Your task to perform on an android device: Search for pizza restaurants on Maps Image 0: 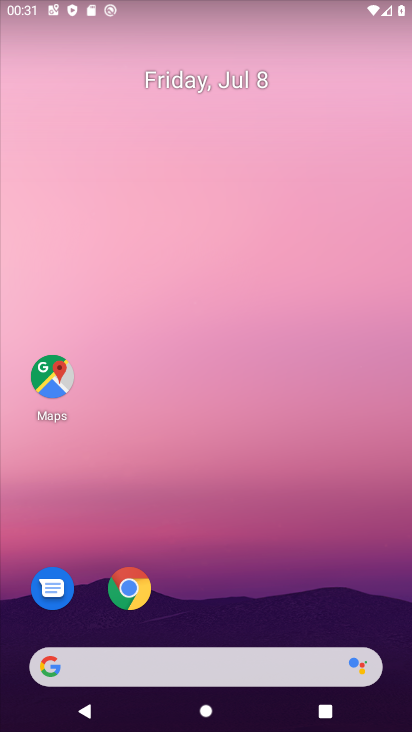
Step 0: drag from (184, 601) to (281, 158)
Your task to perform on an android device: Search for pizza restaurants on Maps Image 1: 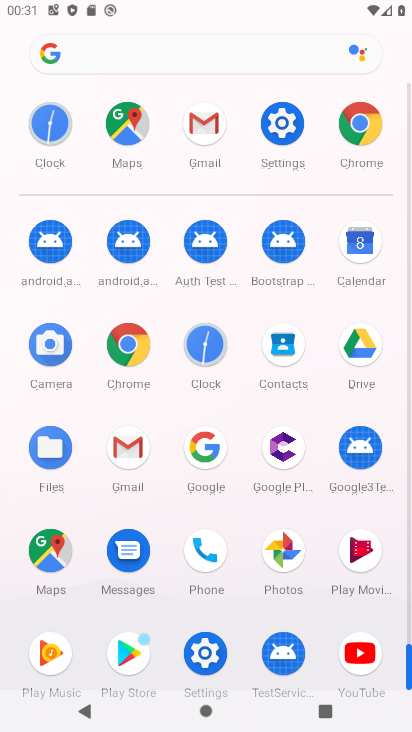
Step 1: click (53, 542)
Your task to perform on an android device: Search for pizza restaurants on Maps Image 2: 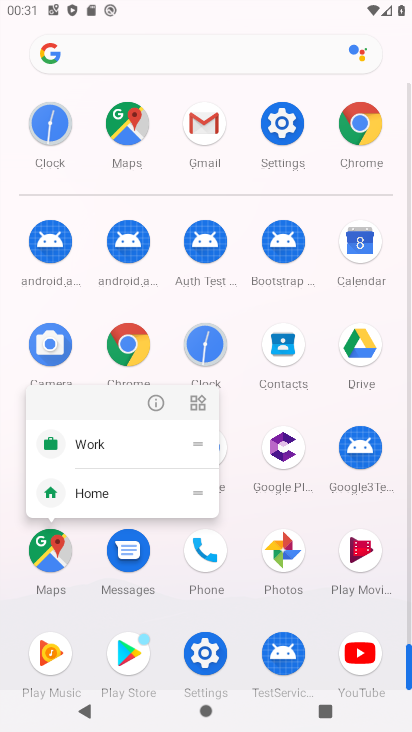
Step 2: click (152, 400)
Your task to perform on an android device: Search for pizza restaurants on Maps Image 3: 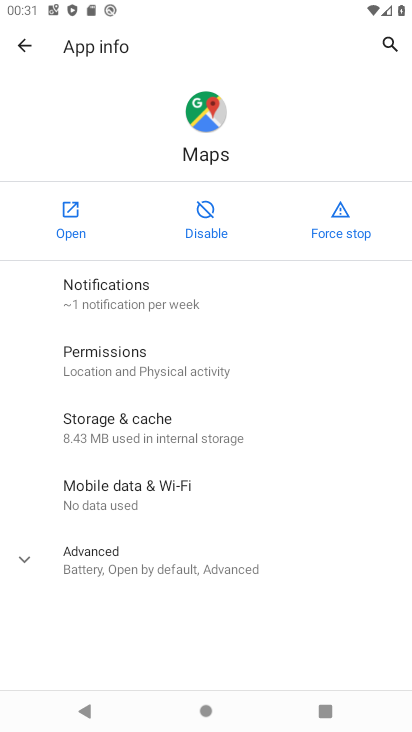
Step 3: click (94, 223)
Your task to perform on an android device: Search for pizza restaurants on Maps Image 4: 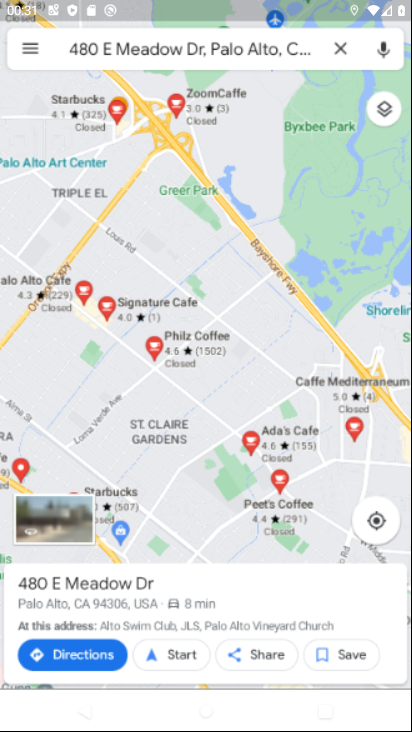
Step 4: click (340, 50)
Your task to perform on an android device: Search for pizza restaurants on Maps Image 5: 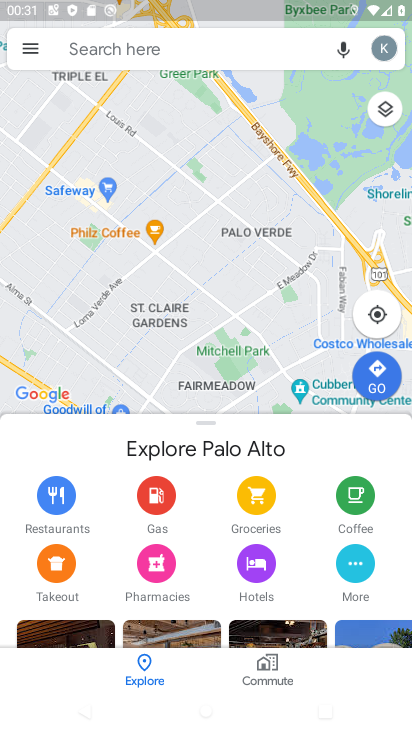
Step 5: click (146, 47)
Your task to perform on an android device: Search for pizza restaurants on Maps Image 6: 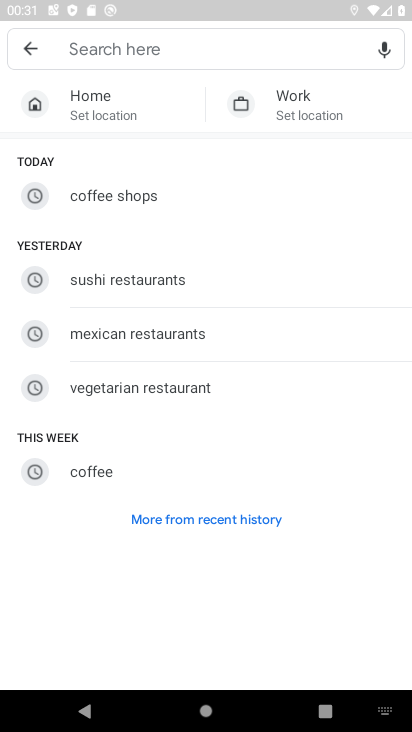
Step 6: type "pizza restaurants"
Your task to perform on an android device: Search for pizza restaurants on Maps Image 7: 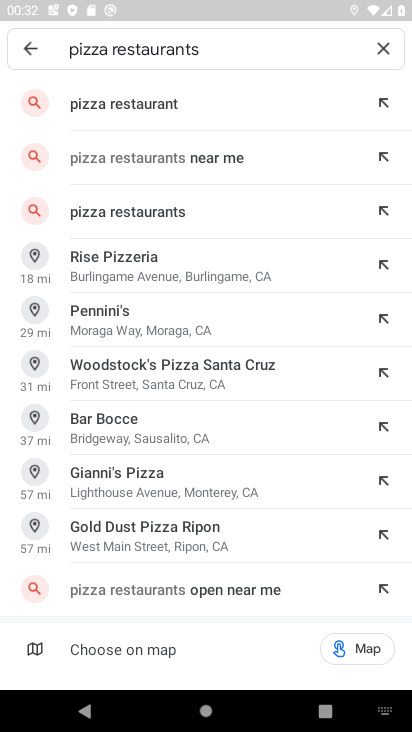
Step 7: click (133, 111)
Your task to perform on an android device: Search for pizza restaurants on Maps Image 8: 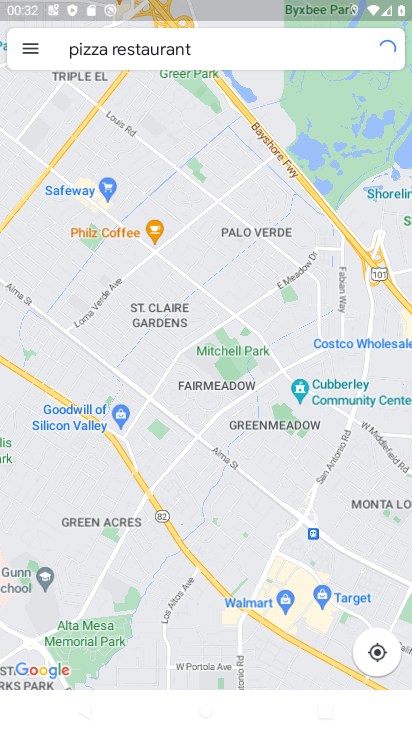
Step 8: task complete